Your task to perform on an android device: turn pop-ups on in chrome Image 0: 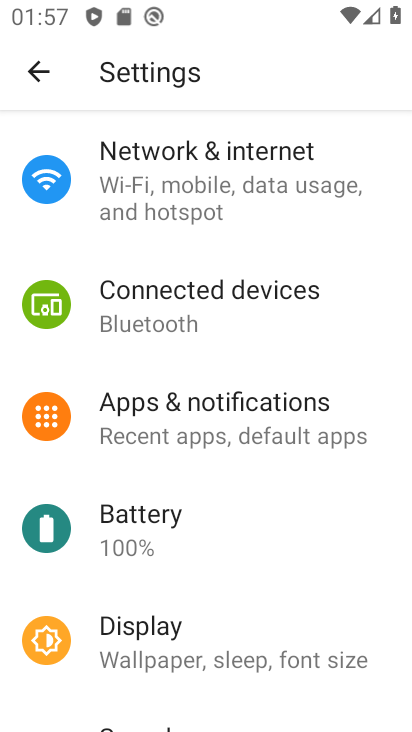
Step 0: press home button
Your task to perform on an android device: turn pop-ups on in chrome Image 1: 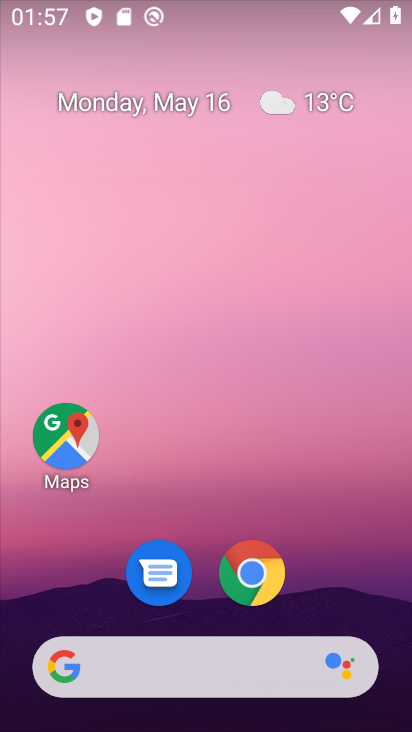
Step 1: click (265, 575)
Your task to perform on an android device: turn pop-ups on in chrome Image 2: 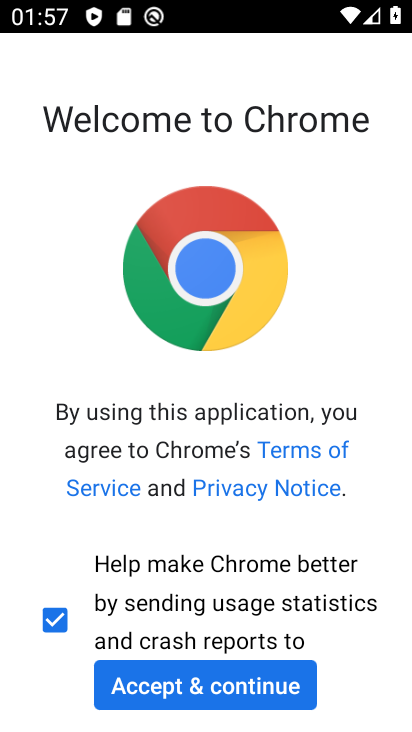
Step 2: click (225, 692)
Your task to perform on an android device: turn pop-ups on in chrome Image 3: 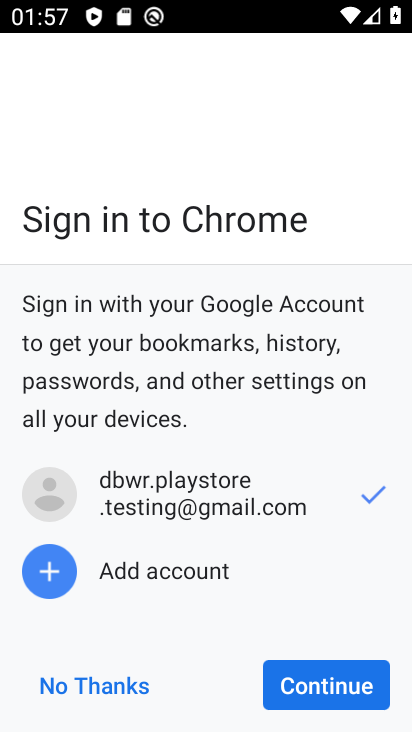
Step 3: click (368, 680)
Your task to perform on an android device: turn pop-ups on in chrome Image 4: 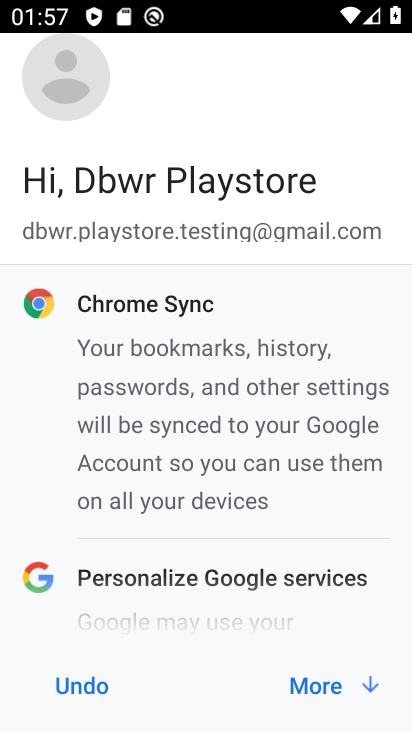
Step 4: click (349, 679)
Your task to perform on an android device: turn pop-ups on in chrome Image 5: 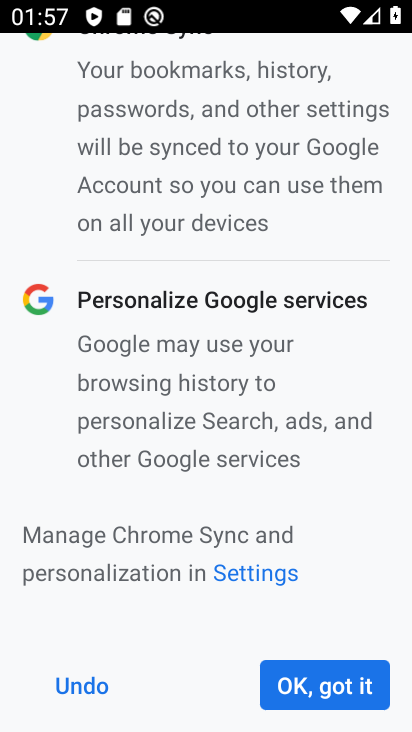
Step 5: click (349, 679)
Your task to perform on an android device: turn pop-ups on in chrome Image 6: 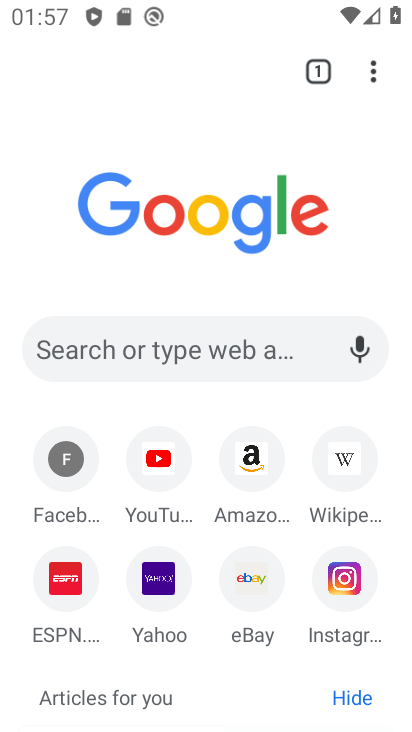
Step 6: click (393, 60)
Your task to perform on an android device: turn pop-ups on in chrome Image 7: 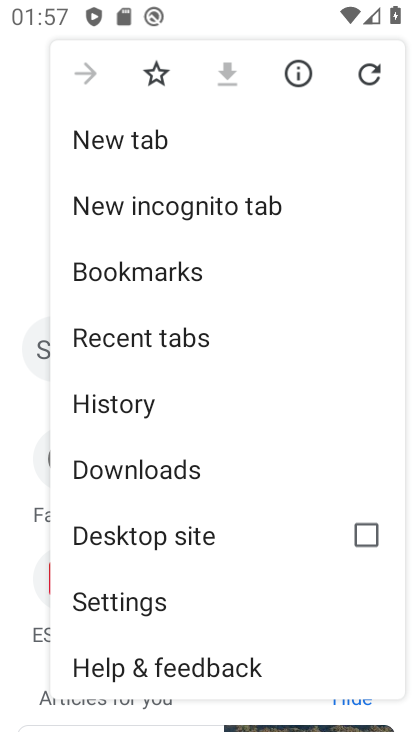
Step 7: click (124, 617)
Your task to perform on an android device: turn pop-ups on in chrome Image 8: 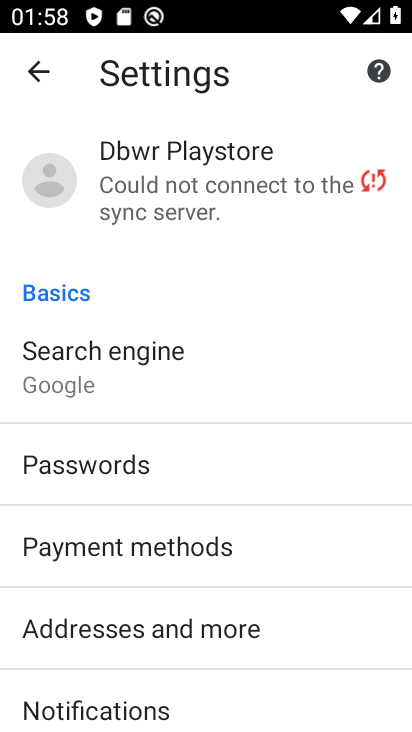
Step 8: drag from (124, 617) to (205, 185)
Your task to perform on an android device: turn pop-ups on in chrome Image 9: 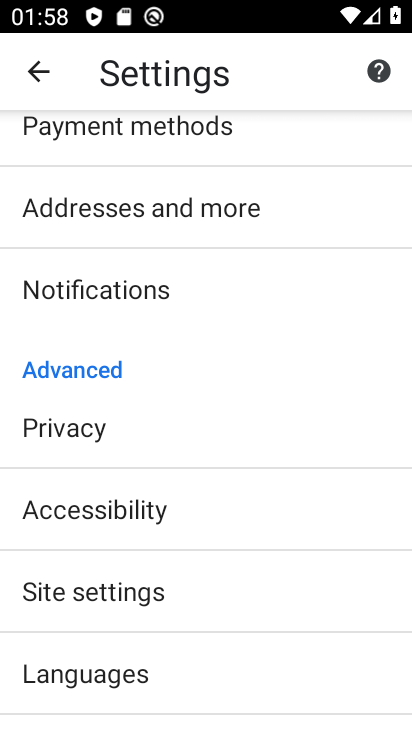
Step 9: drag from (180, 700) to (258, 380)
Your task to perform on an android device: turn pop-ups on in chrome Image 10: 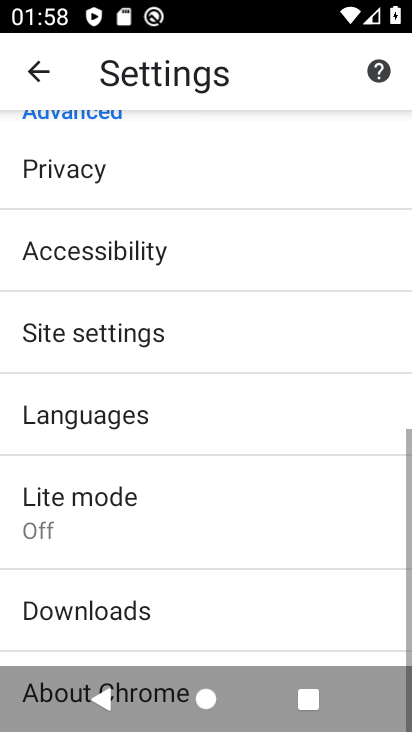
Step 10: click (165, 347)
Your task to perform on an android device: turn pop-ups on in chrome Image 11: 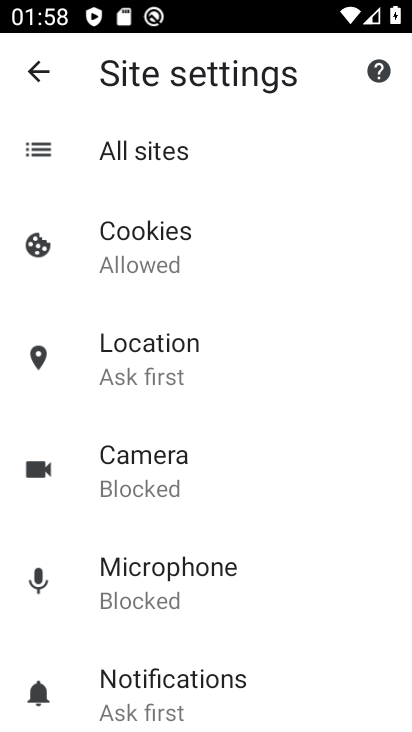
Step 11: drag from (53, 654) to (181, 259)
Your task to perform on an android device: turn pop-ups on in chrome Image 12: 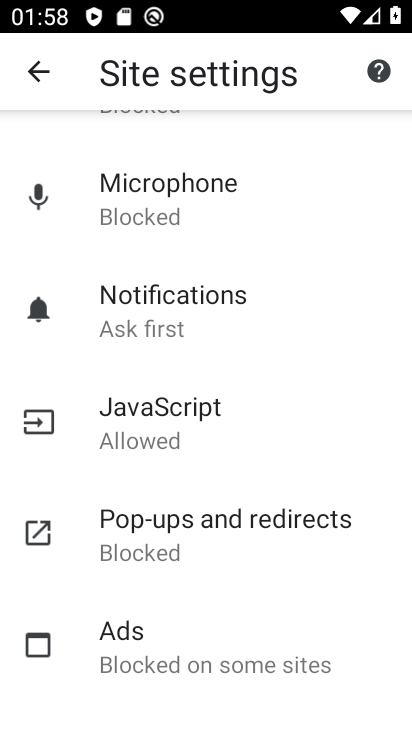
Step 12: click (215, 557)
Your task to perform on an android device: turn pop-ups on in chrome Image 13: 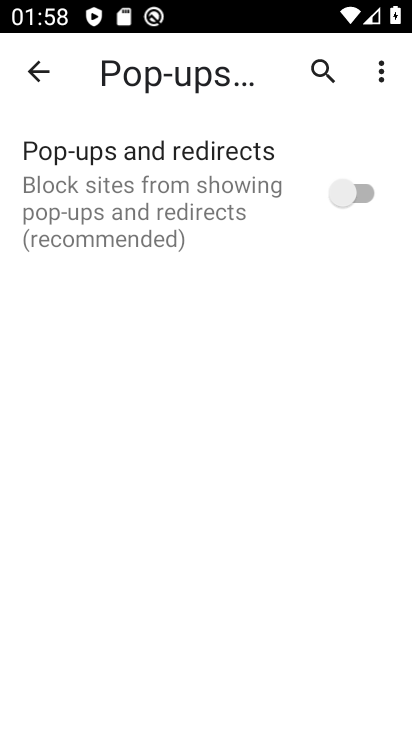
Step 13: task complete